Your task to perform on an android device: change the clock style Image 0: 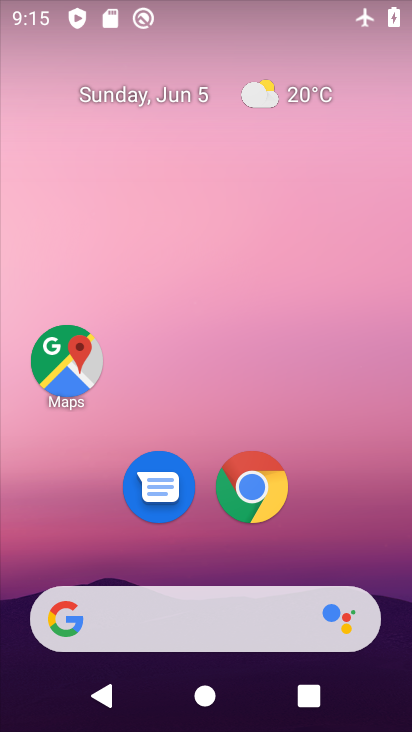
Step 0: drag from (269, 590) to (250, 156)
Your task to perform on an android device: change the clock style Image 1: 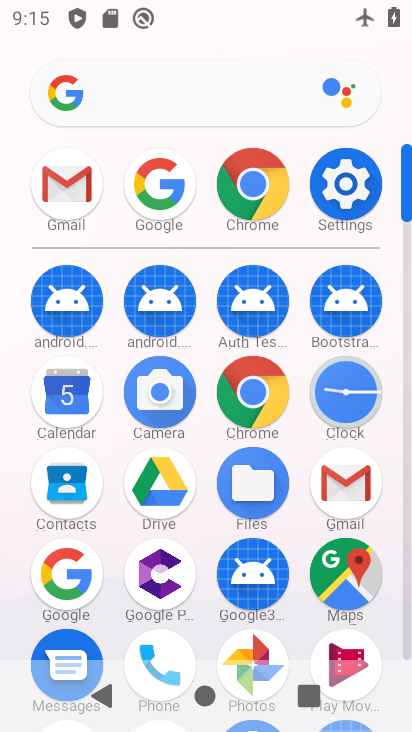
Step 1: click (353, 398)
Your task to perform on an android device: change the clock style Image 2: 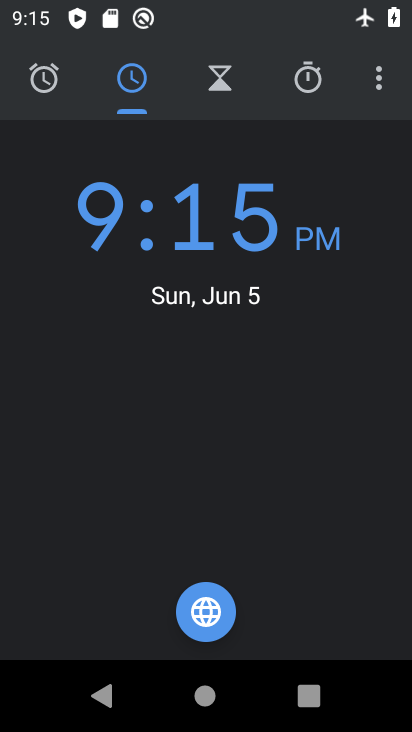
Step 2: click (382, 78)
Your task to perform on an android device: change the clock style Image 3: 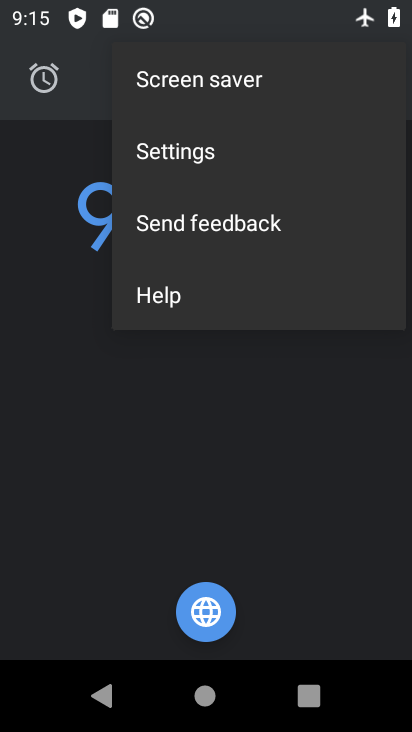
Step 3: click (224, 164)
Your task to perform on an android device: change the clock style Image 4: 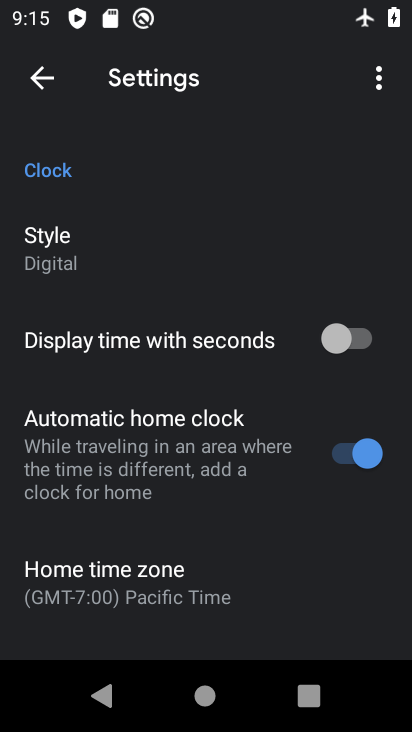
Step 4: click (102, 256)
Your task to perform on an android device: change the clock style Image 5: 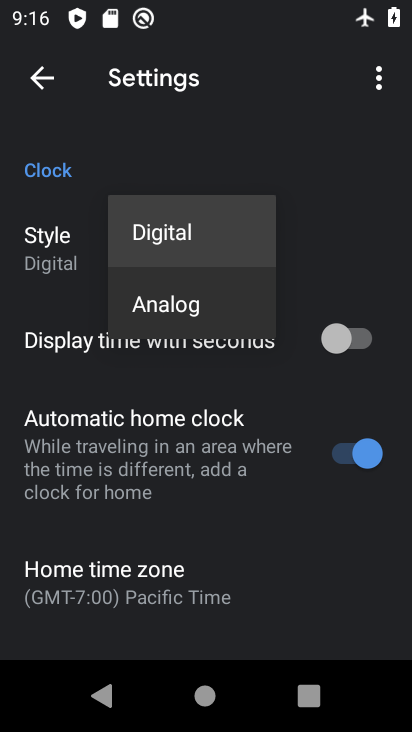
Step 5: click (160, 322)
Your task to perform on an android device: change the clock style Image 6: 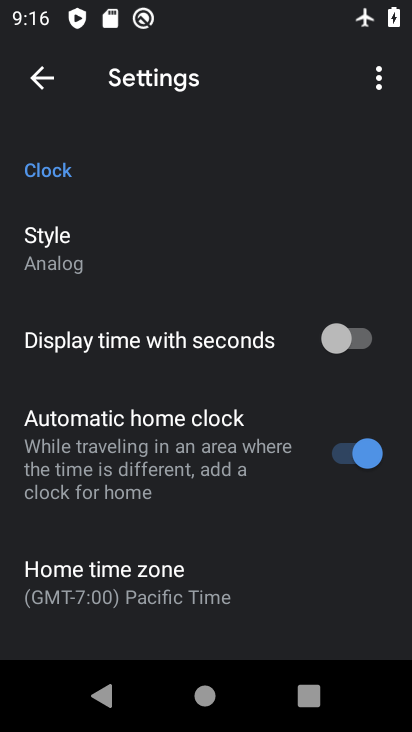
Step 6: task complete